Your task to perform on an android device: turn pop-ups off in chrome Image 0: 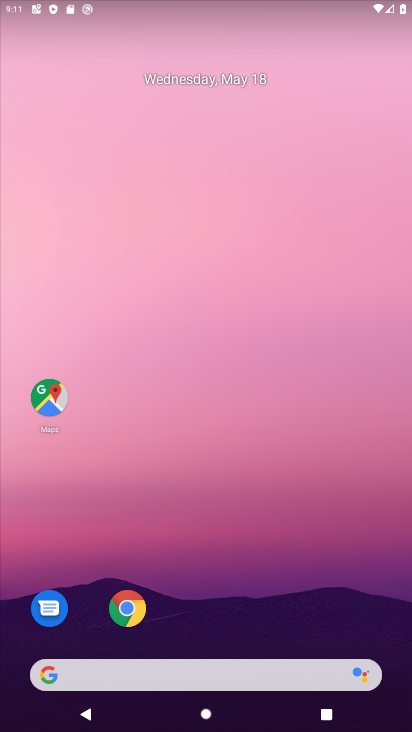
Step 0: click (139, 610)
Your task to perform on an android device: turn pop-ups off in chrome Image 1: 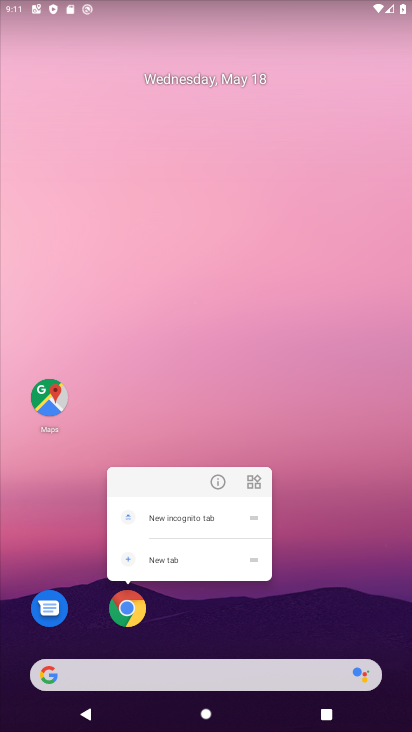
Step 1: click (129, 603)
Your task to perform on an android device: turn pop-ups off in chrome Image 2: 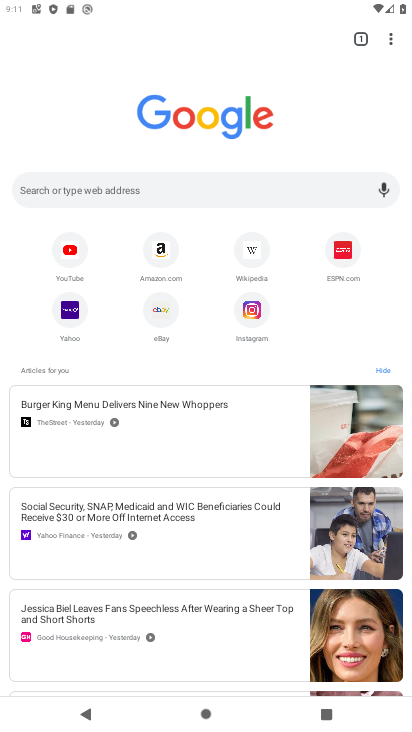
Step 2: click (391, 39)
Your task to perform on an android device: turn pop-ups off in chrome Image 3: 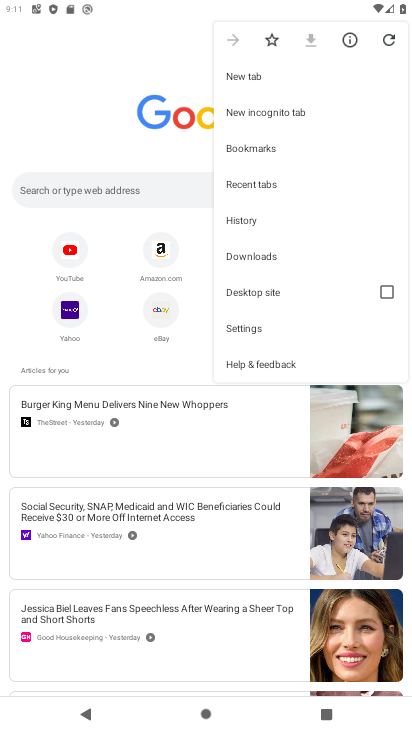
Step 3: click (257, 320)
Your task to perform on an android device: turn pop-ups off in chrome Image 4: 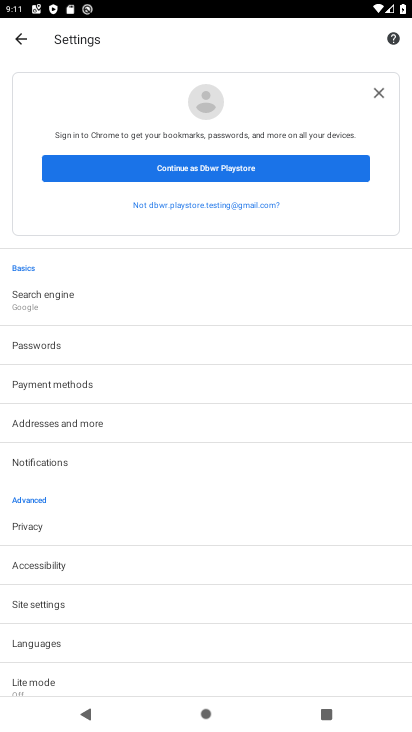
Step 4: click (61, 609)
Your task to perform on an android device: turn pop-ups off in chrome Image 5: 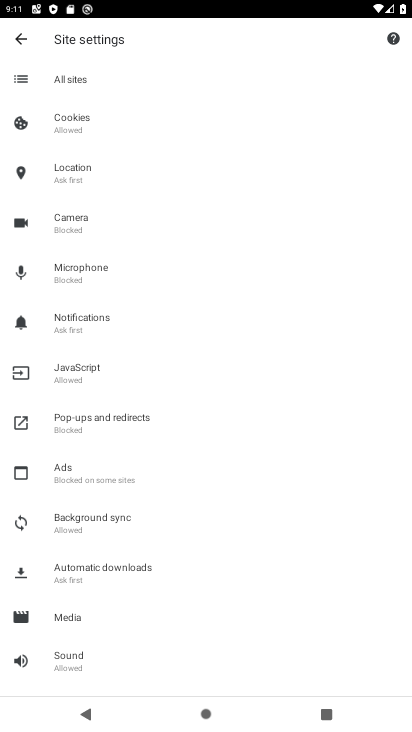
Step 5: click (121, 418)
Your task to perform on an android device: turn pop-ups off in chrome Image 6: 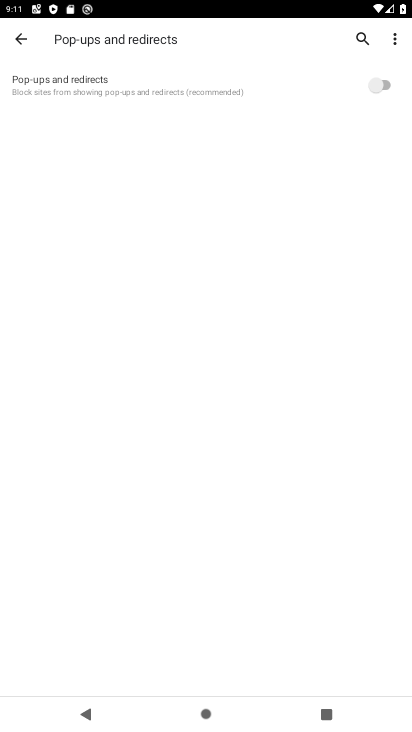
Step 6: click (370, 90)
Your task to perform on an android device: turn pop-ups off in chrome Image 7: 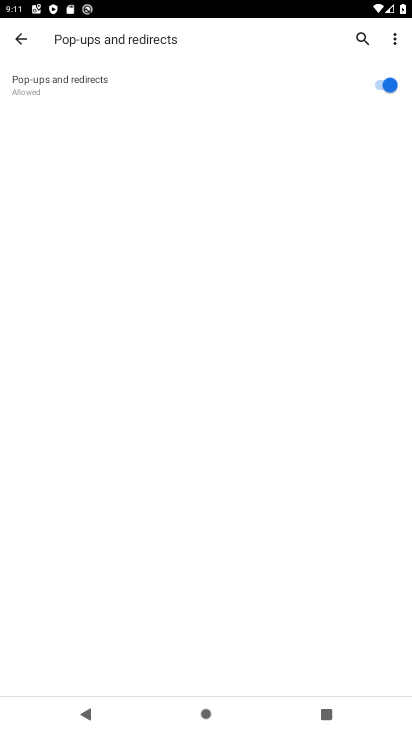
Step 7: task complete